Your task to perform on an android device: Open display settings Image 0: 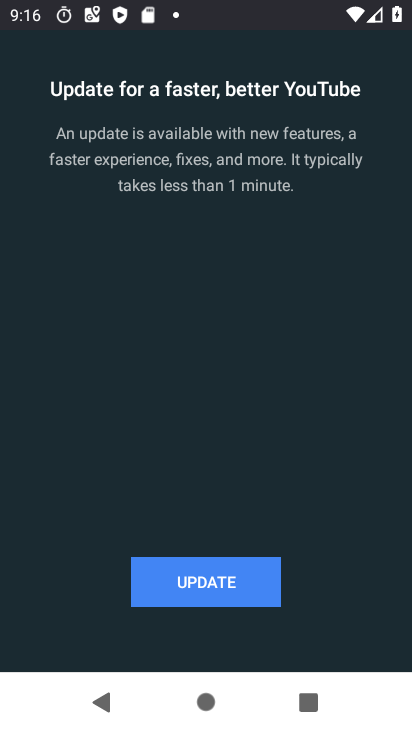
Step 0: press home button
Your task to perform on an android device: Open display settings Image 1: 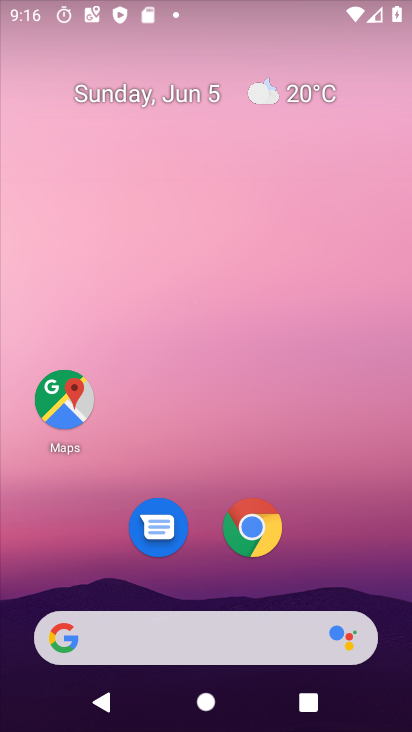
Step 1: drag from (370, 548) to (389, 22)
Your task to perform on an android device: Open display settings Image 2: 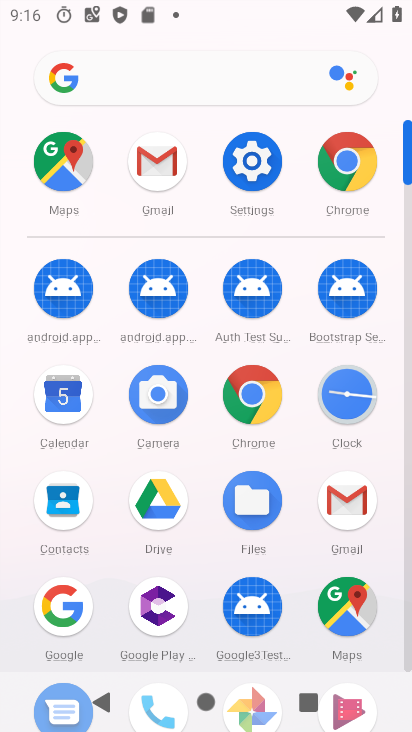
Step 2: click (255, 178)
Your task to perform on an android device: Open display settings Image 3: 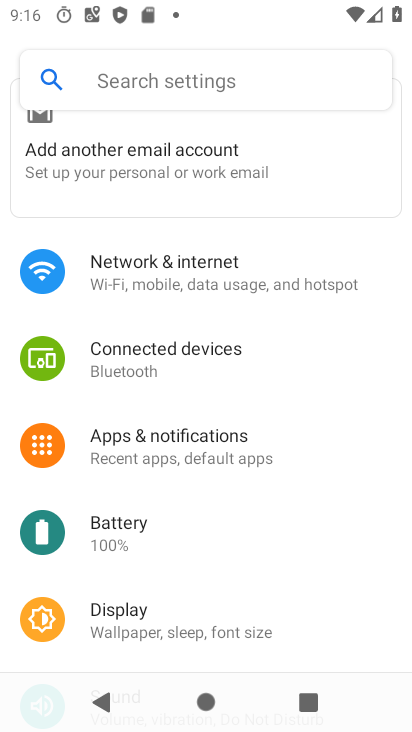
Step 3: click (110, 629)
Your task to perform on an android device: Open display settings Image 4: 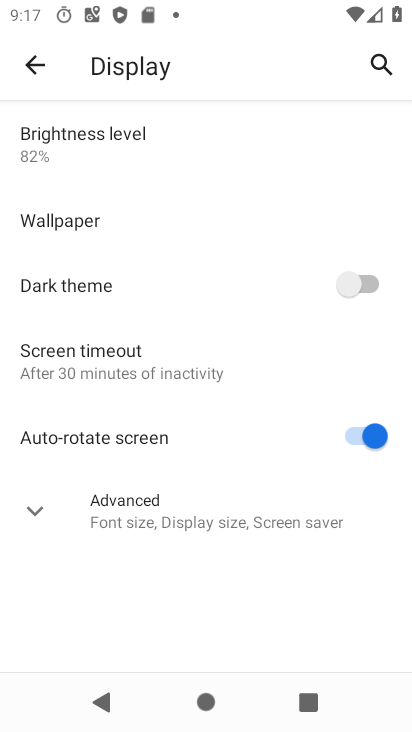
Step 4: task complete